Your task to perform on an android device: turn off airplane mode Image 0: 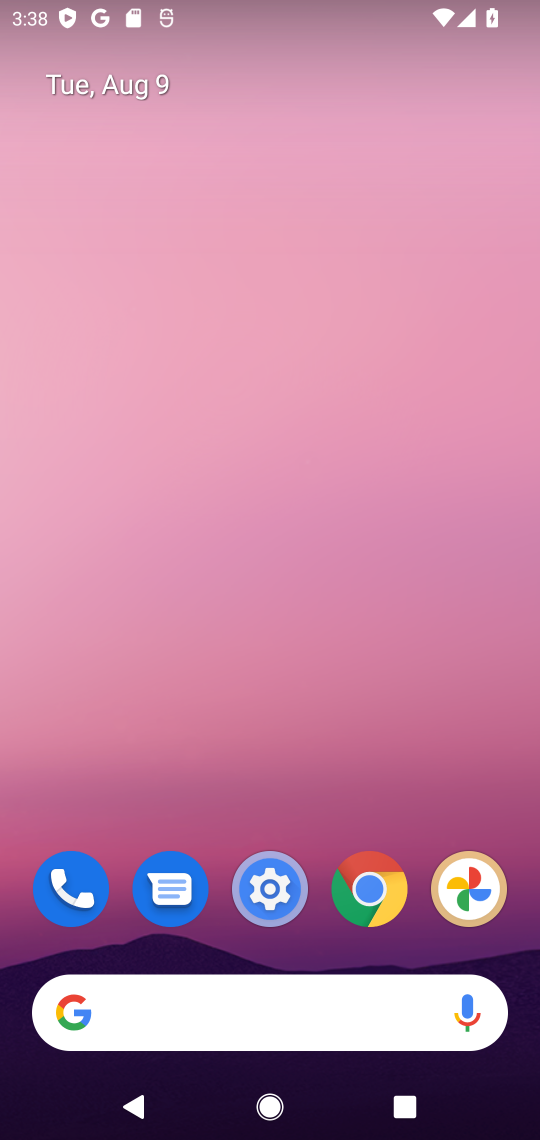
Step 0: click (265, 773)
Your task to perform on an android device: turn off airplane mode Image 1: 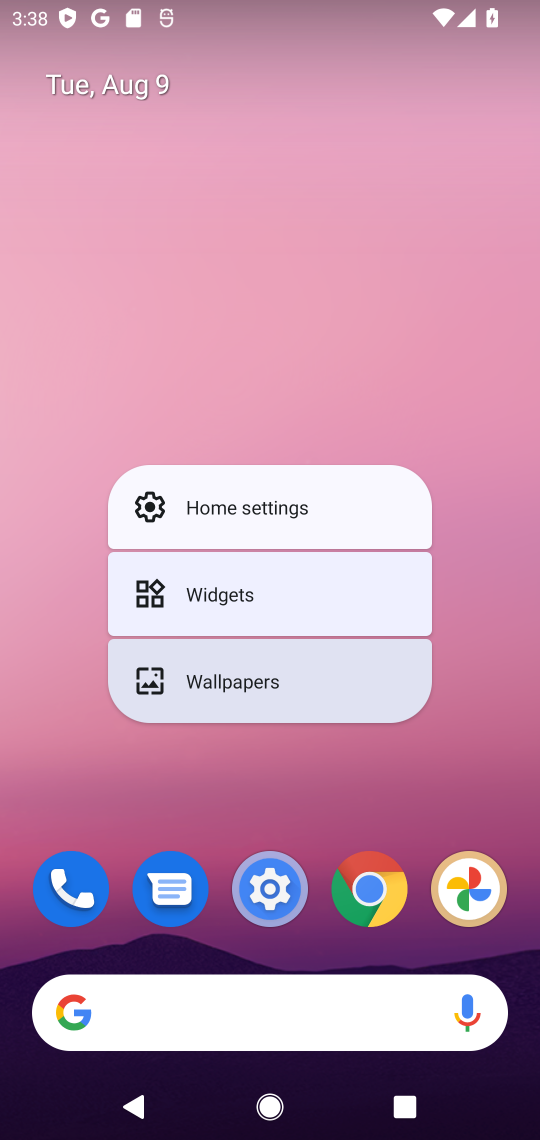
Step 1: click (261, 880)
Your task to perform on an android device: turn off airplane mode Image 2: 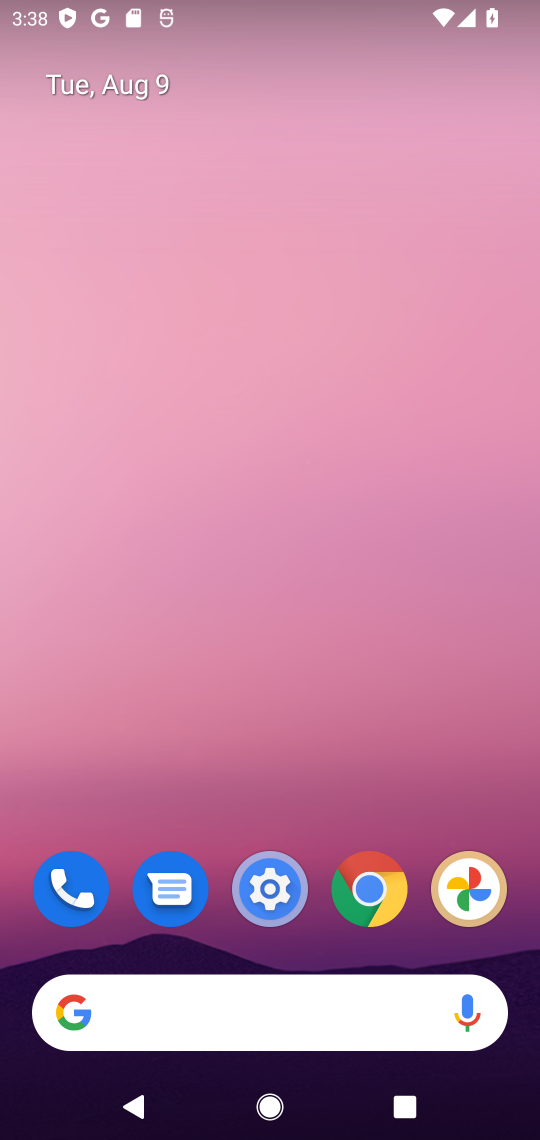
Step 2: click (263, 878)
Your task to perform on an android device: turn off airplane mode Image 3: 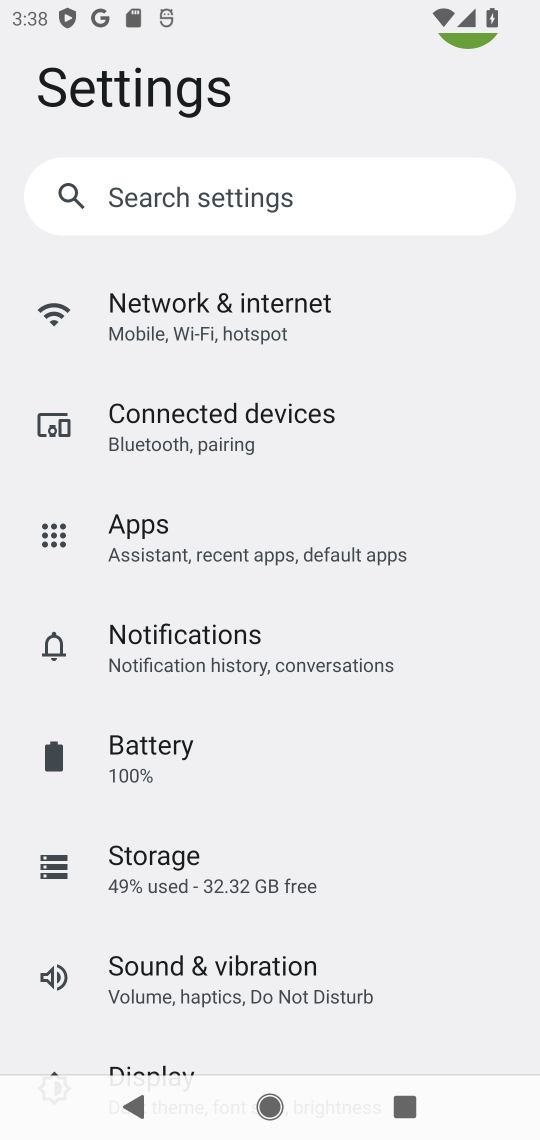
Step 3: click (282, 320)
Your task to perform on an android device: turn off airplane mode Image 4: 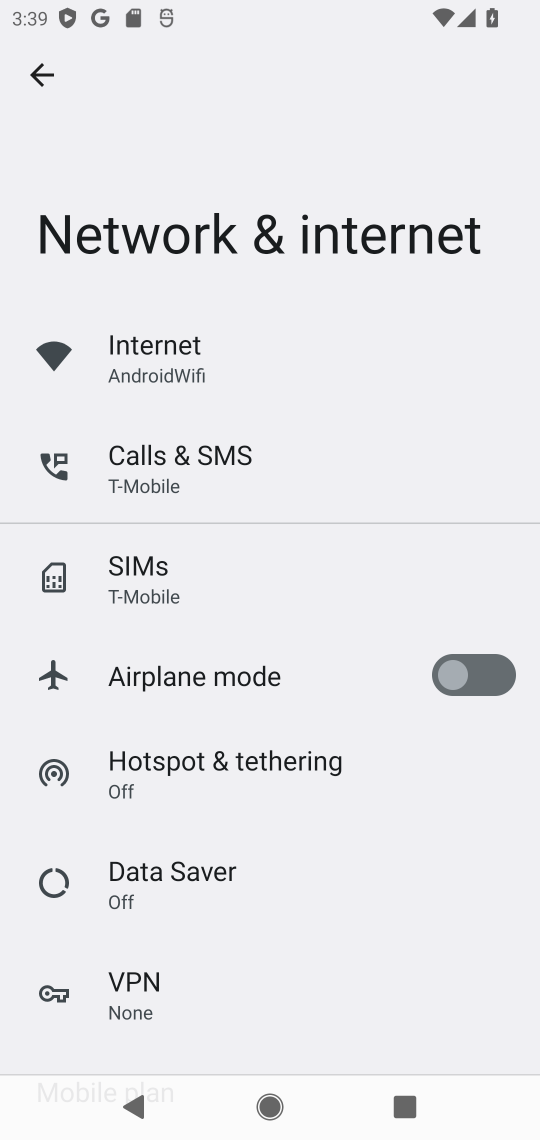
Step 4: task complete